Your task to perform on an android device: turn pop-ups off in chrome Image 0: 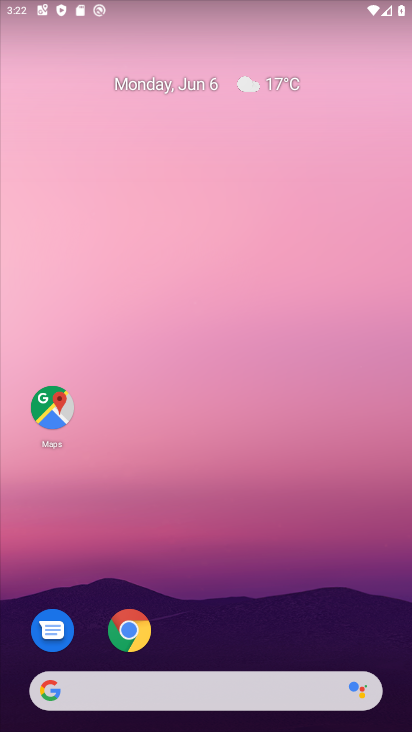
Step 0: click (117, 637)
Your task to perform on an android device: turn pop-ups off in chrome Image 1: 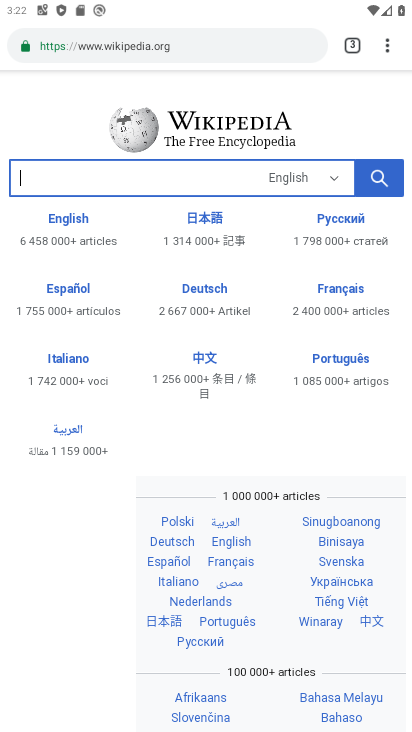
Step 1: drag from (389, 39) to (242, 543)
Your task to perform on an android device: turn pop-ups off in chrome Image 2: 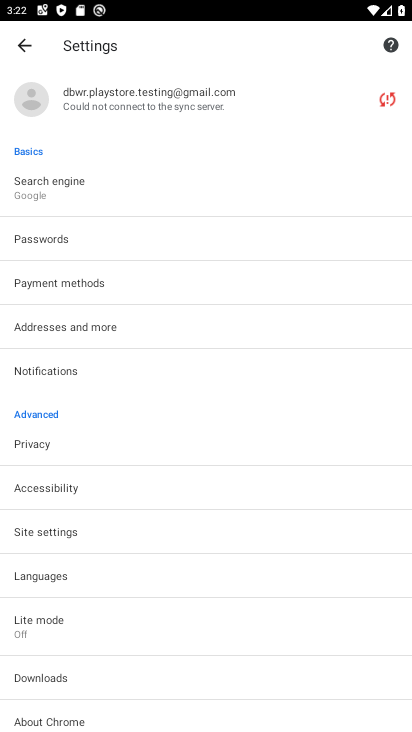
Step 2: click (28, 530)
Your task to perform on an android device: turn pop-ups off in chrome Image 3: 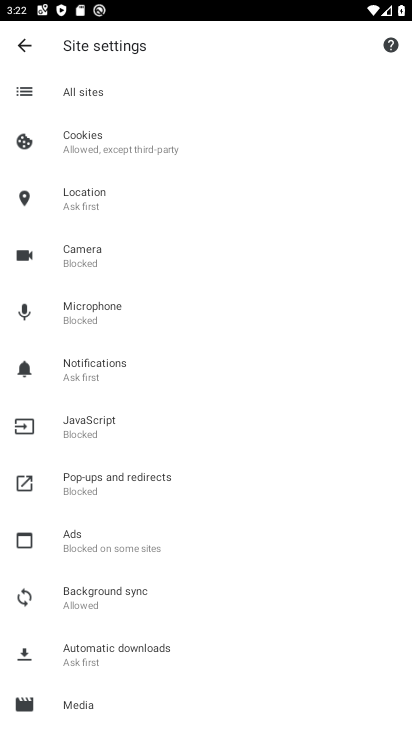
Step 3: click (116, 478)
Your task to perform on an android device: turn pop-ups off in chrome Image 4: 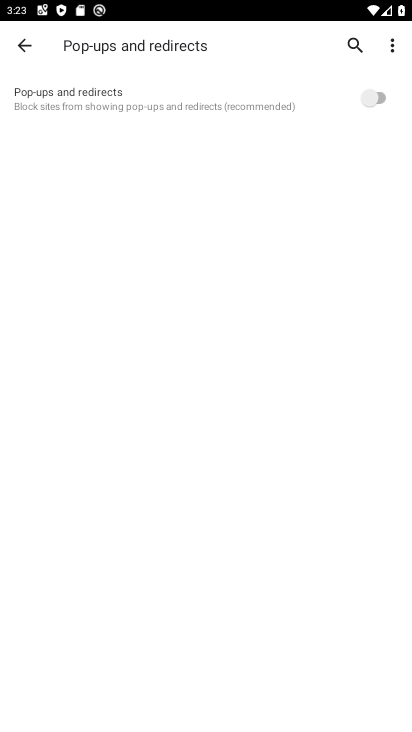
Step 4: task complete